Your task to perform on an android device: turn off picture-in-picture Image 0: 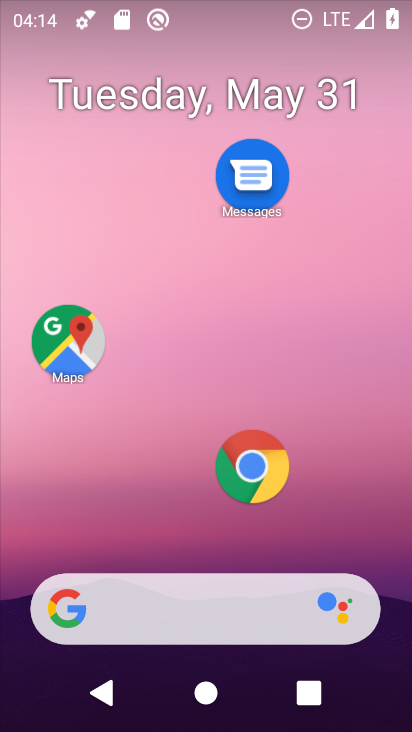
Step 0: drag from (121, 567) to (189, 197)
Your task to perform on an android device: turn off picture-in-picture Image 1: 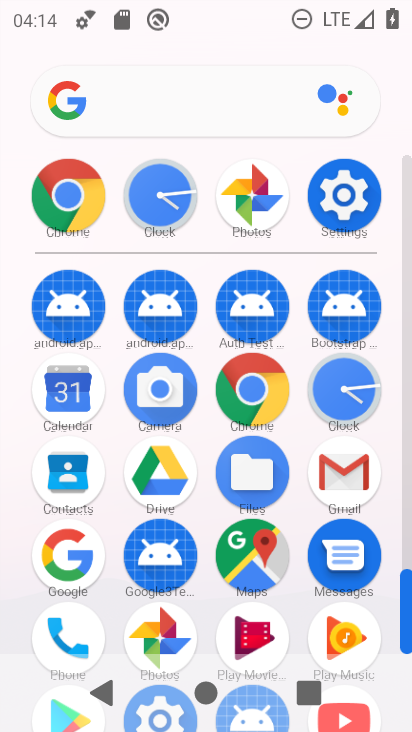
Step 1: click (332, 198)
Your task to perform on an android device: turn off picture-in-picture Image 2: 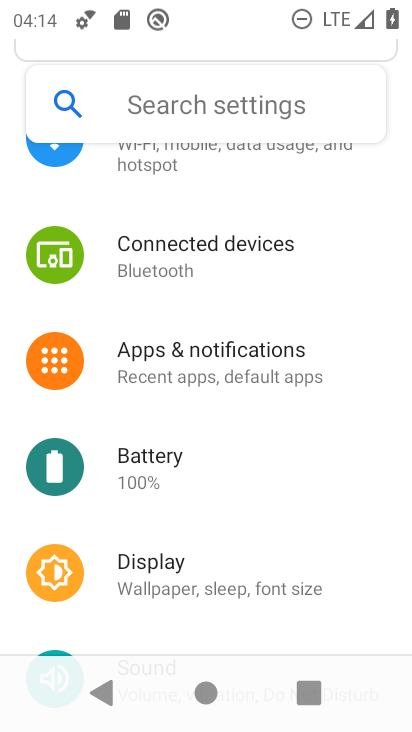
Step 2: drag from (307, 211) to (265, 481)
Your task to perform on an android device: turn off picture-in-picture Image 3: 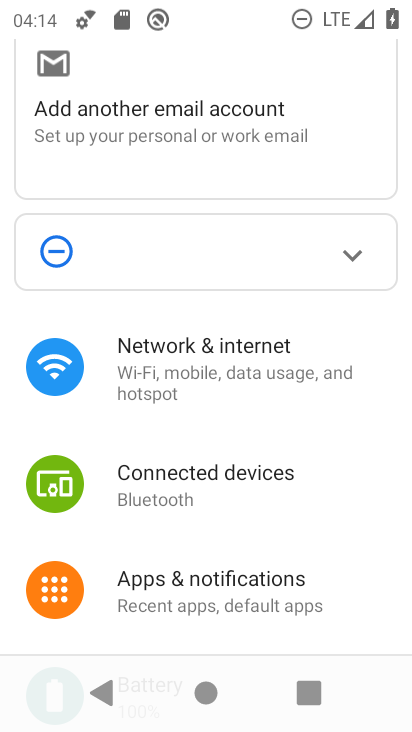
Step 3: drag from (212, 600) to (283, 176)
Your task to perform on an android device: turn off picture-in-picture Image 4: 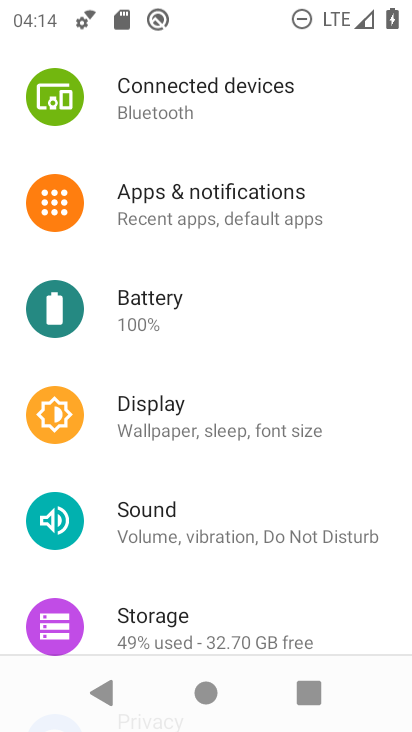
Step 4: click (252, 208)
Your task to perform on an android device: turn off picture-in-picture Image 5: 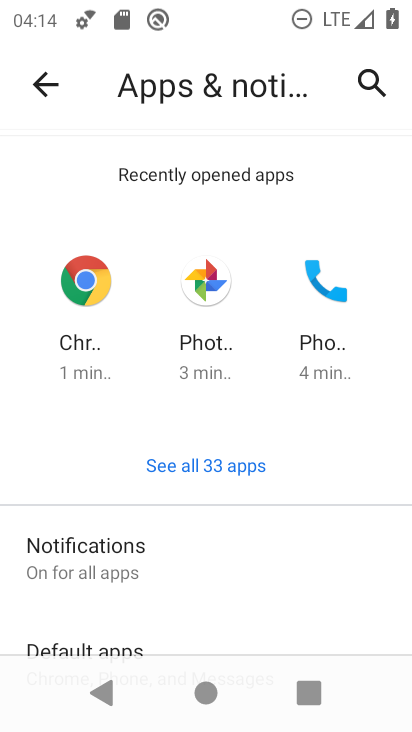
Step 5: drag from (168, 648) to (273, 266)
Your task to perform on an android device: turn off picture-in-picture Image 6: 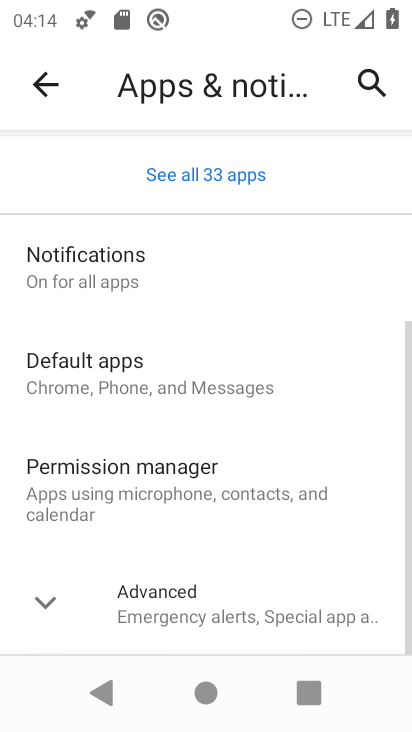
Step 6: click (113, 256)
Your task to perform on an android device: turn off picture-in-picture Image 7: 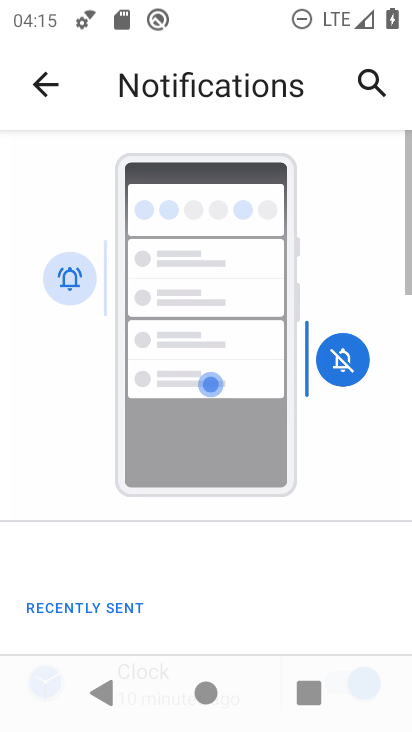
Step 7: drag from (170, 579) to (294, 94)
Your task to perform on an android device: turn off picture-in-picture Image 8: 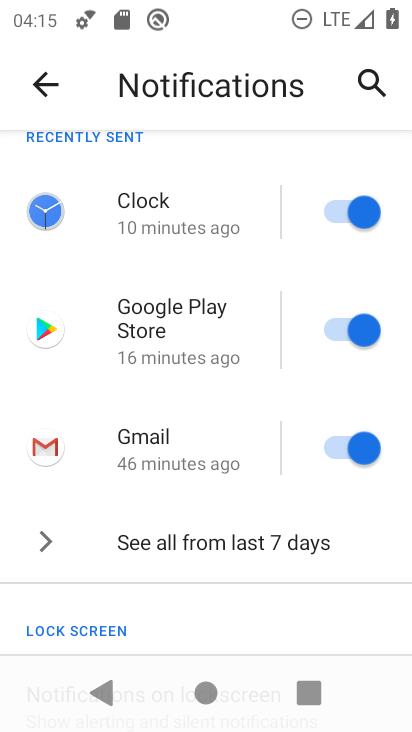
Step 8: drag from (173, 600) to (217, 175)
Your task to perform on an android device: turn off picture-in-picture Image 9: 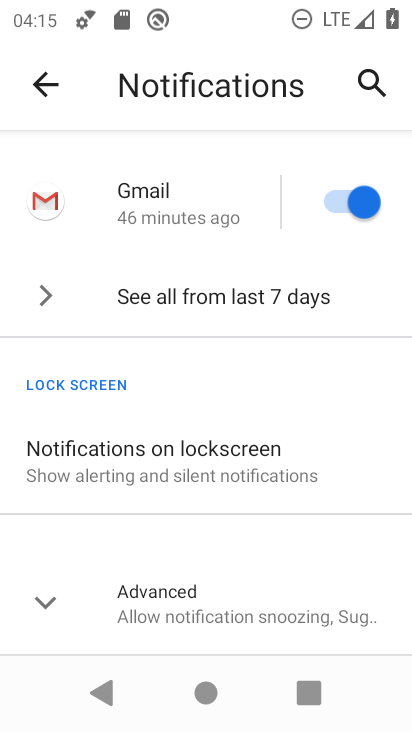
Step 9: click (186, 611)
Your task to perform on an android device: turn off picture-in-picture Image 10: 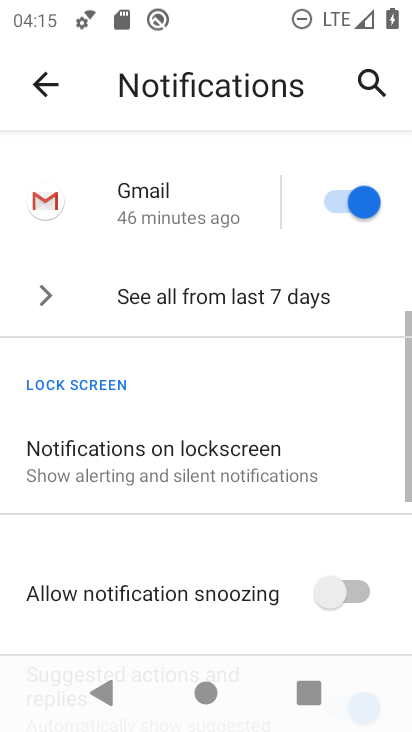
Step 10: drag from (182, 617) to (258, 112)
Your task to perform on an android device: turn off picture-in-picture Image 11: 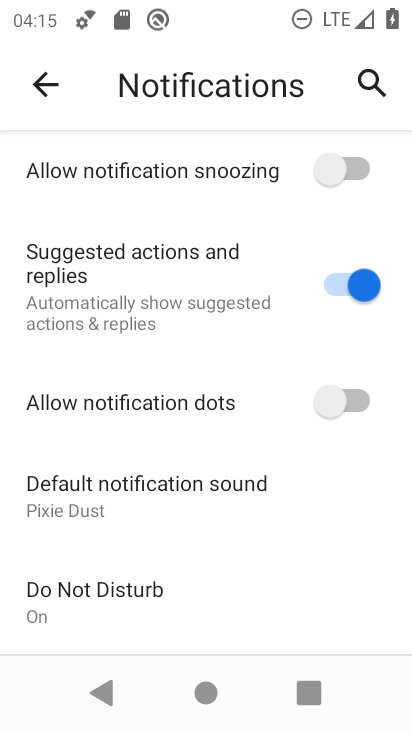
Step 11: drag from (163, 601) to (265, 134)
Your task to perform on an android device: turn off picture-in-picture Image 12: 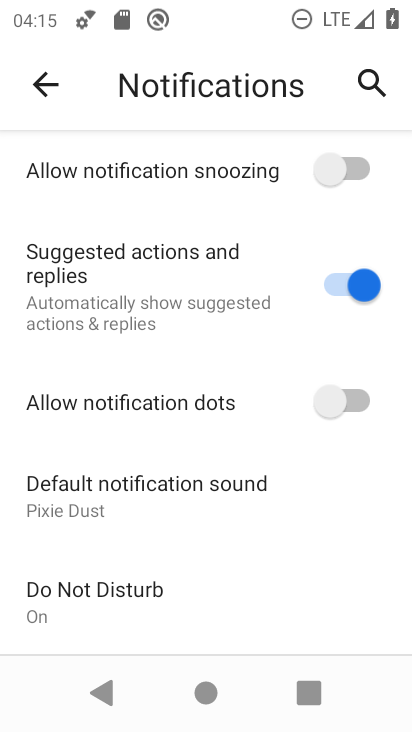
Step 12: click (48, 88)
Your task to perform on an android device: turn off picture-in-picture Image 13: 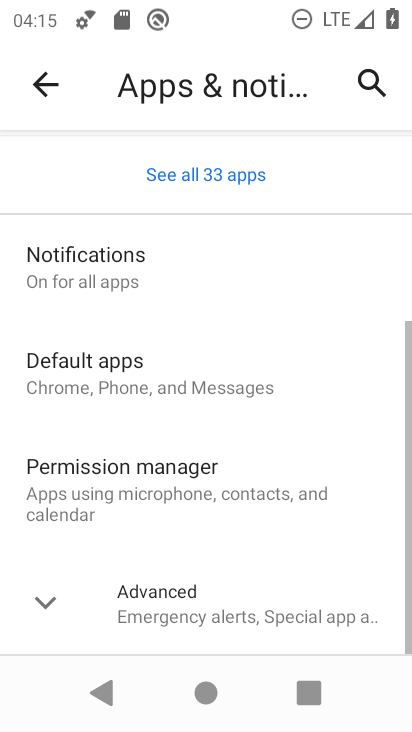
Step 13: drag from (152, 585) to (267, 79)
Your task to perform on an android device: turn off picture-in-picture Image 14: 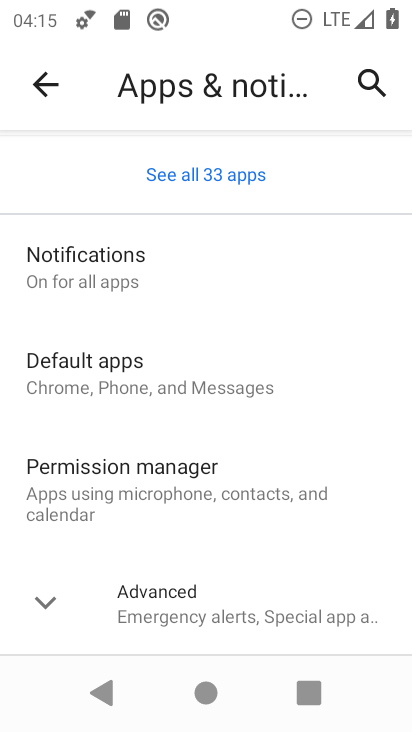
Step 14: click (185, 608)
Your task to perform on an android device: turn off picture-in-picture Image 15: 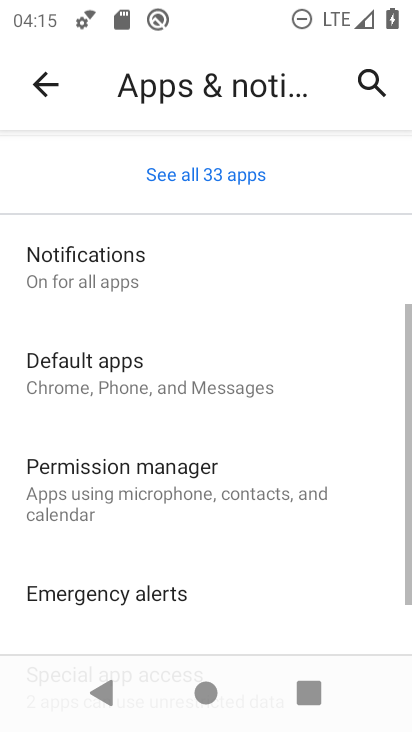
Step 15: drag from (185, 608) to (298, 125)
Your task to perform on an android device: turn off picture-in-picture Image 16: 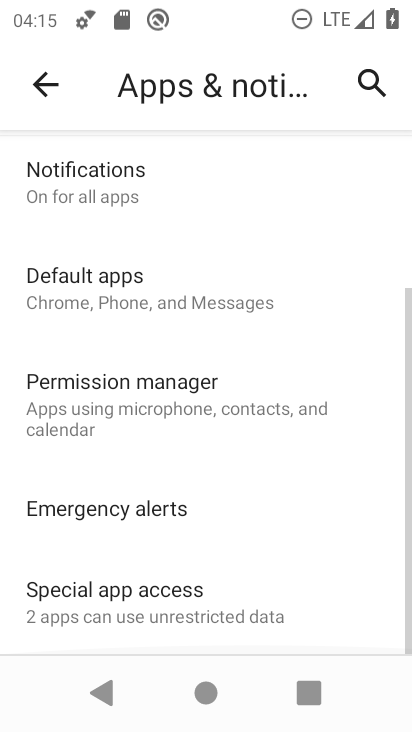
Step 16: click (137, 605)
Your task to perform on an android device: turn off picture-in-picture Image 17: 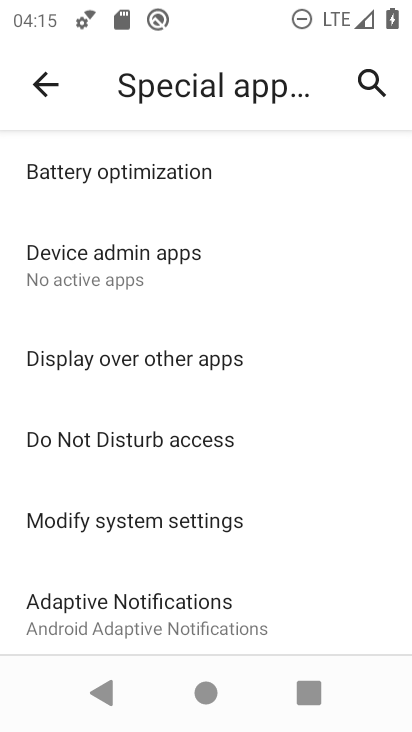
Step 17: drag from (165, 607) to (293, 102)
Your task to perform on an android device: turn off picture-in-picture Image 18: 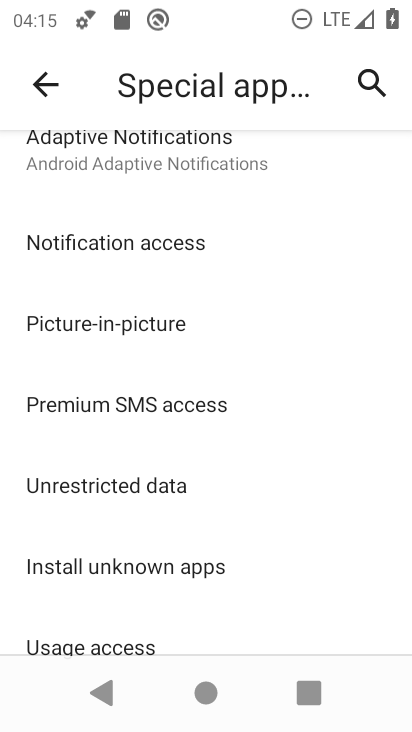
Step 18: click (96, 322)
Your task to perform on an android device: turn off picture-in-picture Image 19: 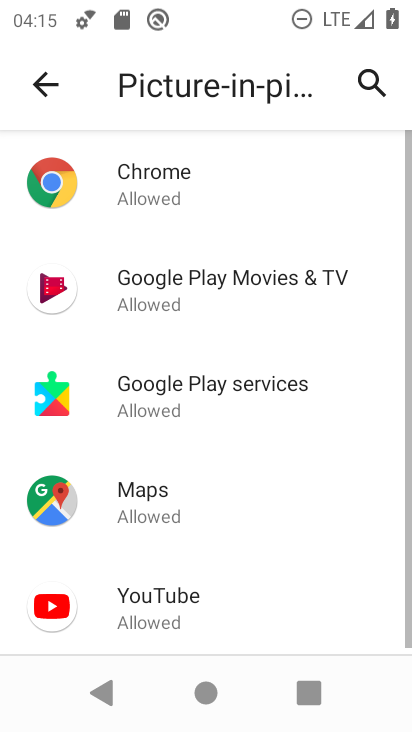
Step 19: click (141, 182)
Your task to perform on an android device: turn off picture-in-picture Image 20: 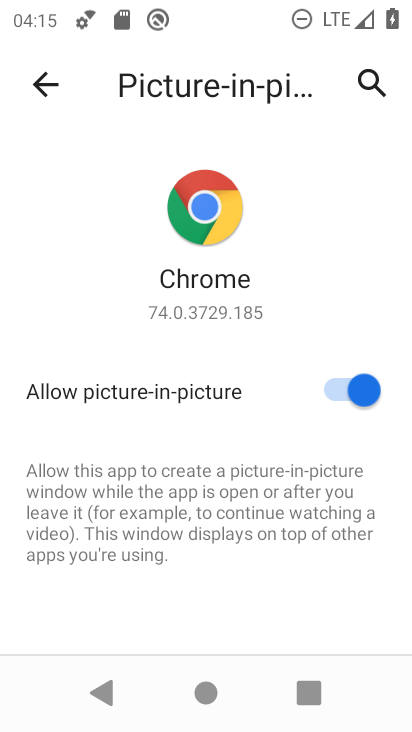
Step 20: click (367, 392)
Your task to perform on an android device: turn off picture-in-picture Image 21: 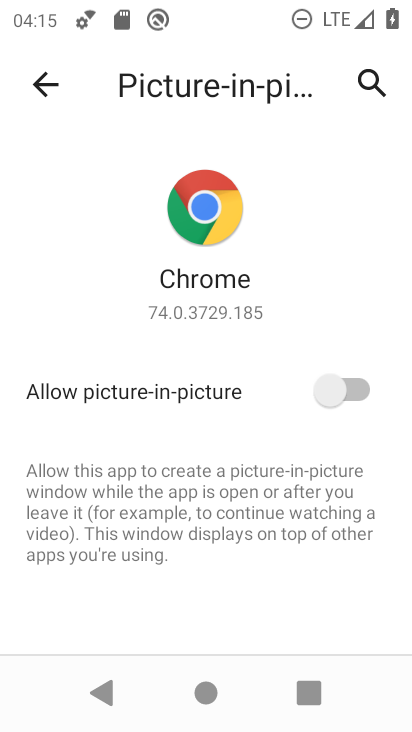
Step 21: task complete